Your task to perform on an android device: turn off javascript in the chrome app Image 0: 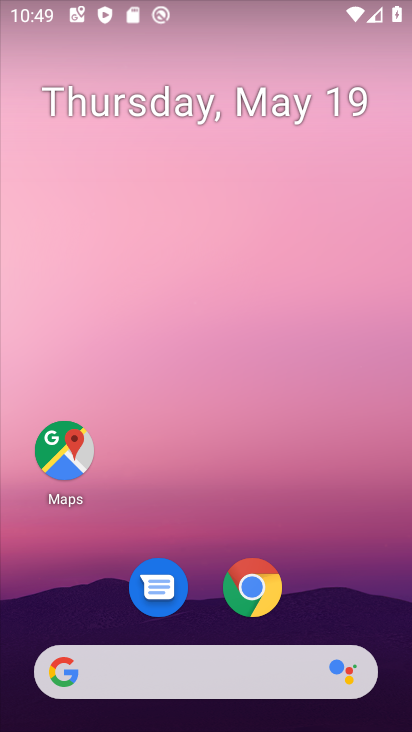
Step 0: click (244, 588)
Your task to perform on an android device: turn off javascript in the chrome app Image 1: 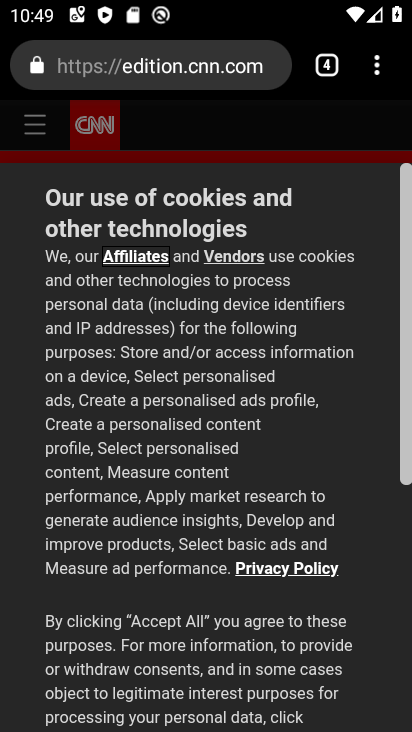
Step 1: drag from (380, 77) to (152, 635)
Your task to perform on an android device: turn off javascript in the chrome app Image 2: 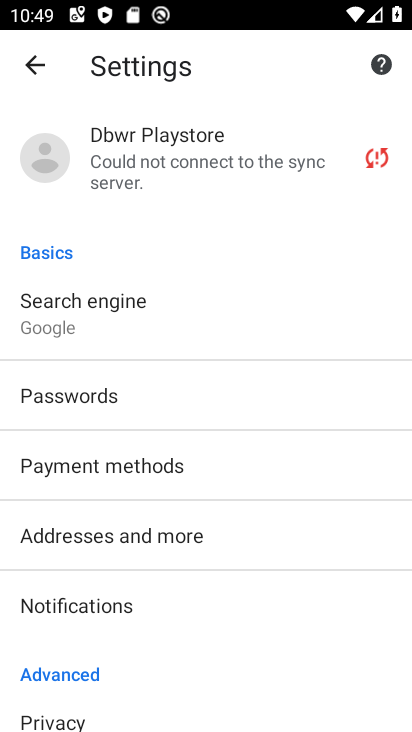
Step 2: drag from (130, 600) to (141, 40)
Your task to perform on an android device: turn off javascript in the chrome app Image 3: 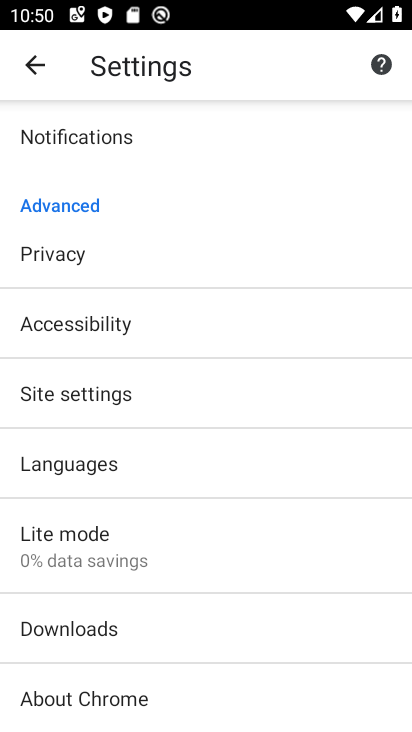
Step 3: click (85, 407)
Your task to perform on an android device: turn off javascript in the chrome app Image 4: 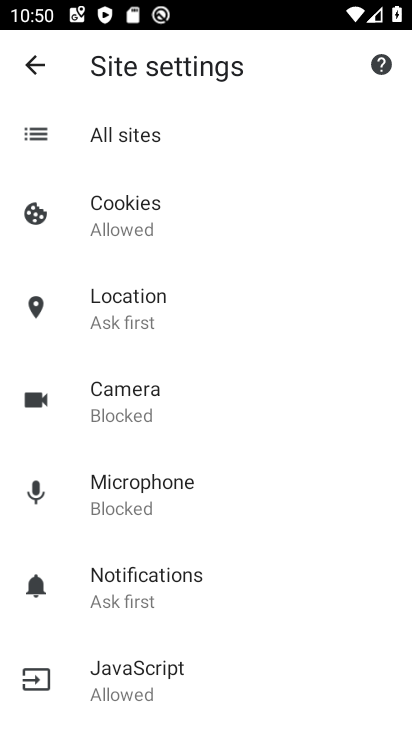
Step 4: click (140, 671)
Your task to perform on an android device: turn off javascript in the chrome app Image 5: 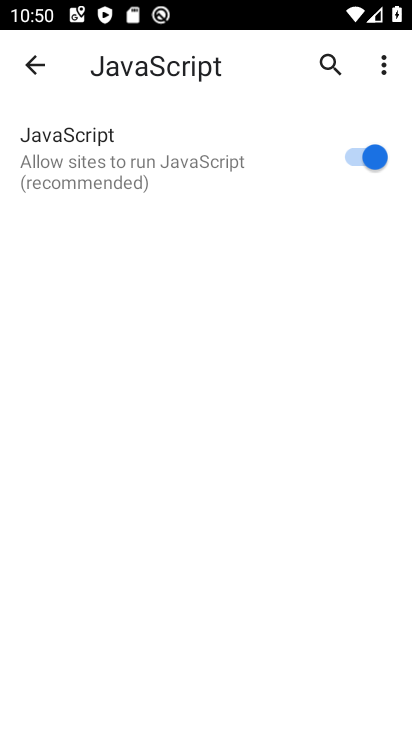
Step 5: click (370, 165)
Your task to perform on an android device: turn off javascript in the chrome app Image 6: 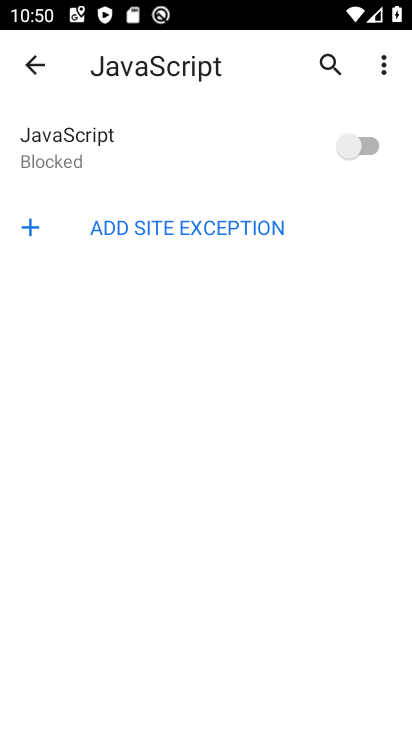
Step 6: task complete